Your task to perform on an android device: Show me productivity apps on the Play Store Image 0: 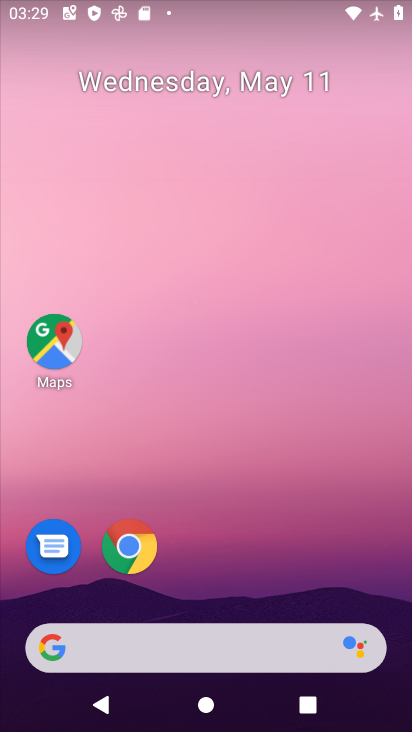
Step 0: click (399, 267)
Your task to perform on an android device: Show me productivity apps on the Play Store Image 1: 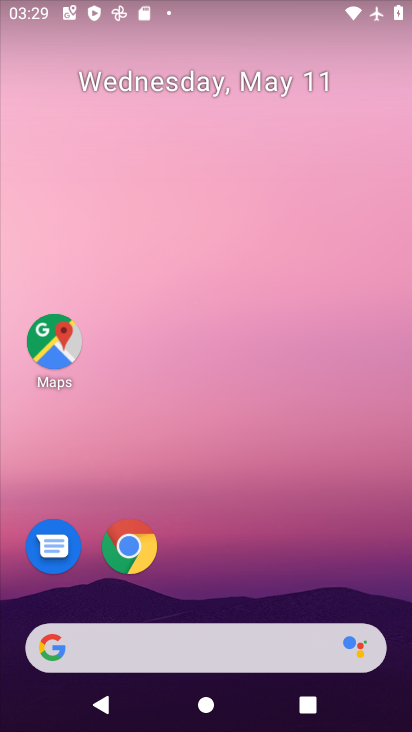
Step 1: drag from (203, 568) to (293, 171)
Your task to perform on an android device: Show me productivity apps on the Play Store Image 2: 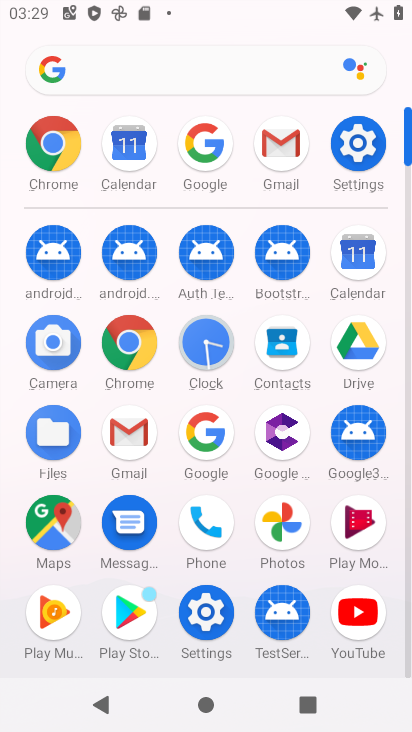
Step 2: click (119, 617)
Your task to perform on an android device: Show me productivity apps on the Play Store Image 3: 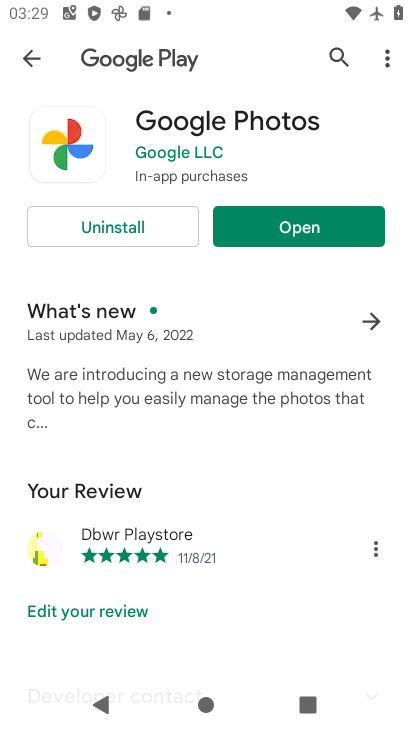
Step 3: click (35, 54)
Your task to perform on an android device: Show me productivity apps on the Play Store Image 4: 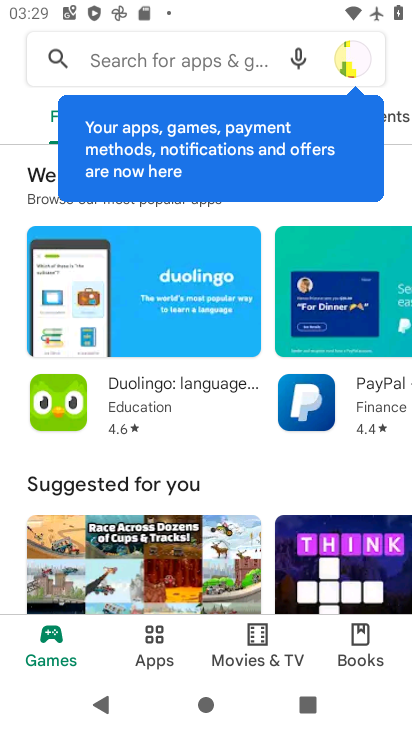
Step 4: drag from (214, 536) to (262, 392)
Your task to perform on an android device: Show me productivity apps on the Play Store Image 5: 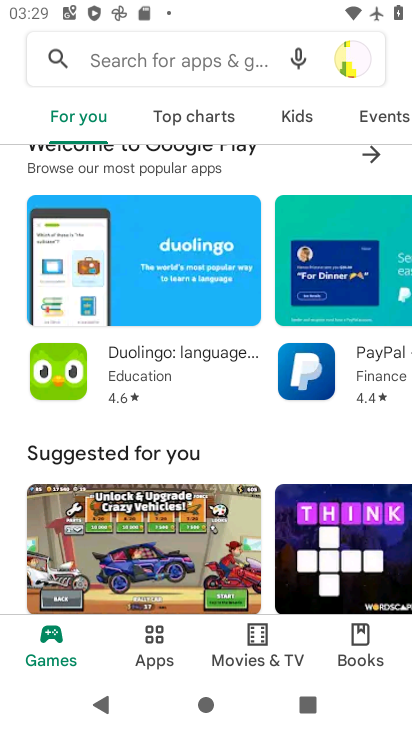
Step 5: click (356, 50)
Your task to perform on an android device: Show me productivity apps on the Play Store Image 6: 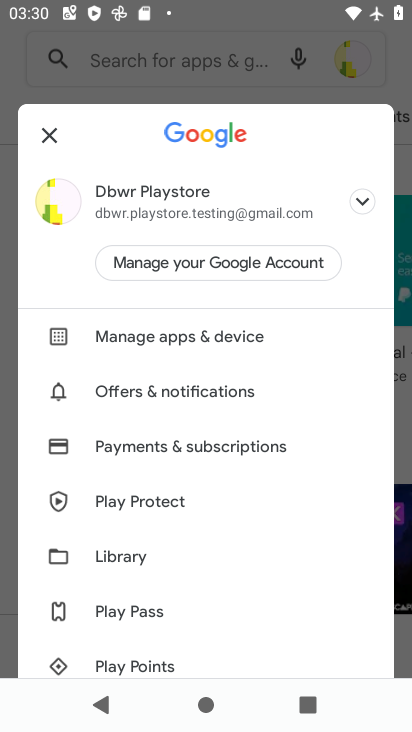
Step 6: click (216, 341)
Your task to perform on an android device: Show me productivity apps on the Play Store Image 7: 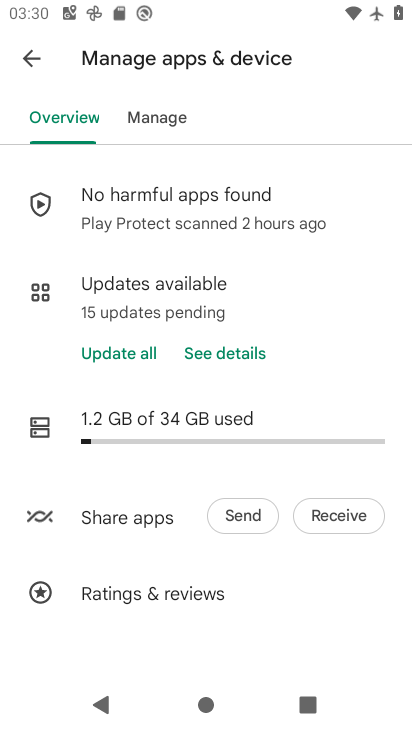
Step 7: click (192, 292)
Your task to perform on an android device: Show me productivity apps on the Play Store Image 8: 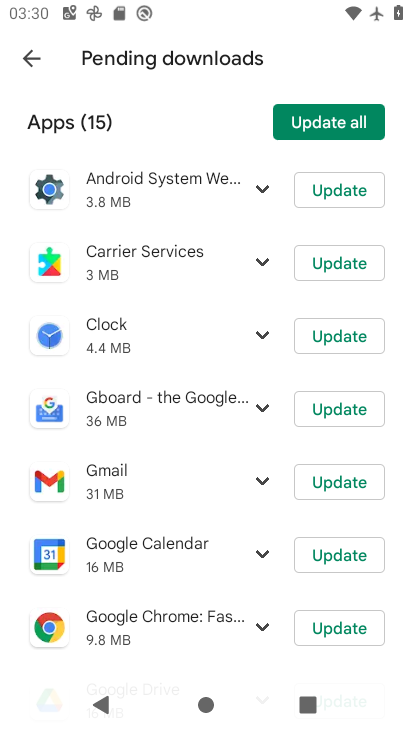
Step 8: task complete